Your task to perform on an android device: Open Reddit.com Image 0: 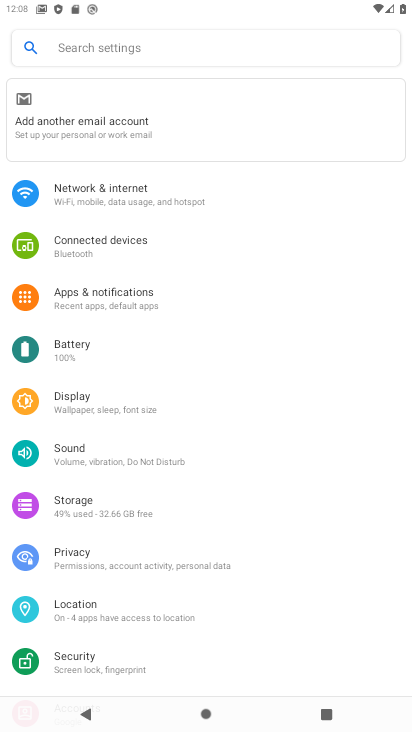
Step 0: press home button
Your task to perform on an android device: Open Reddit.com Image 1: 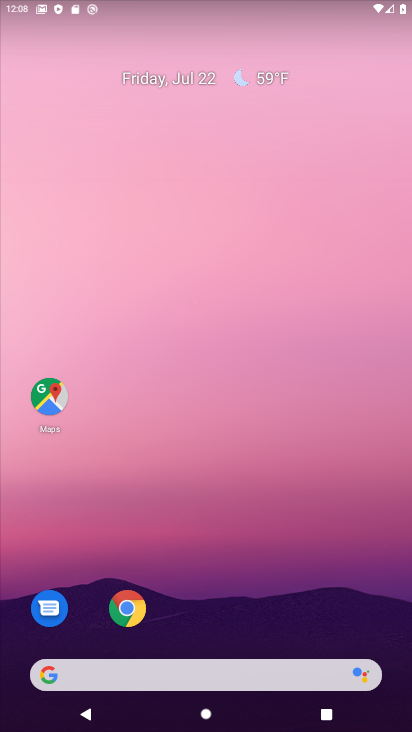
Step 1: click (129, 604)
Your task to perform on an android device: Open Reddit.com Image 2: 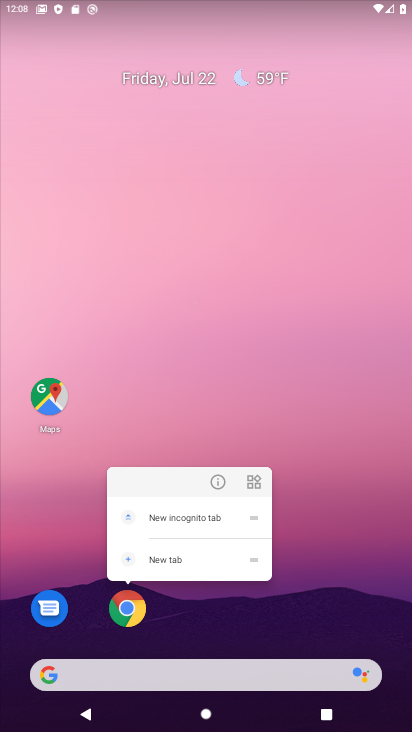
Step 2: click (121, 613)
Your task to perform on an android device: Open Reddit.com Image 3: 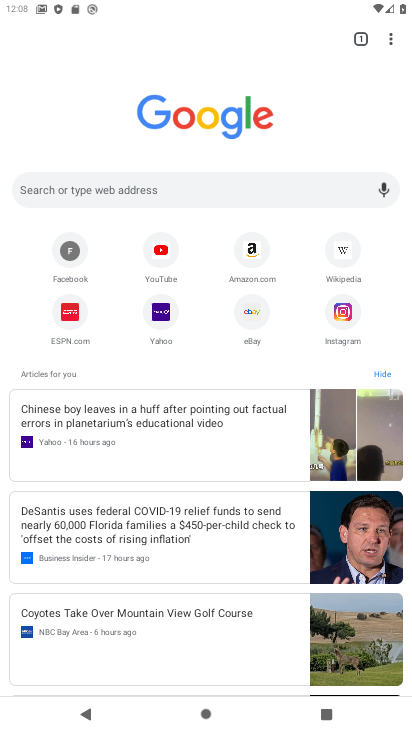
Step 3: click (175, 186)
Your task to perform on an android device: Open Reddit.com Image 4: 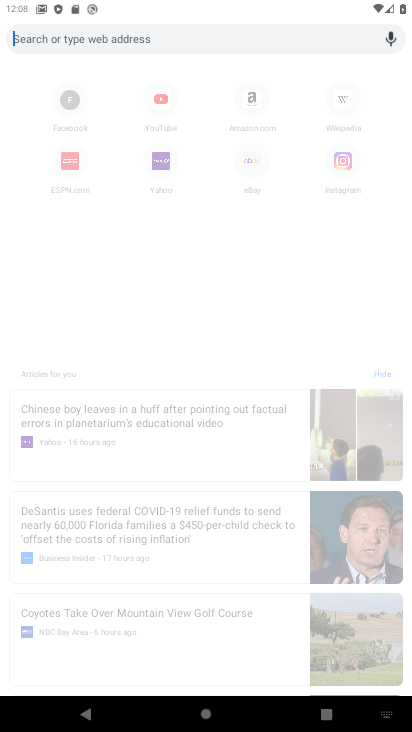
Step 4: type "Reddit.com"
Your task to perform on an android device: Open Reddit.com Image 5: 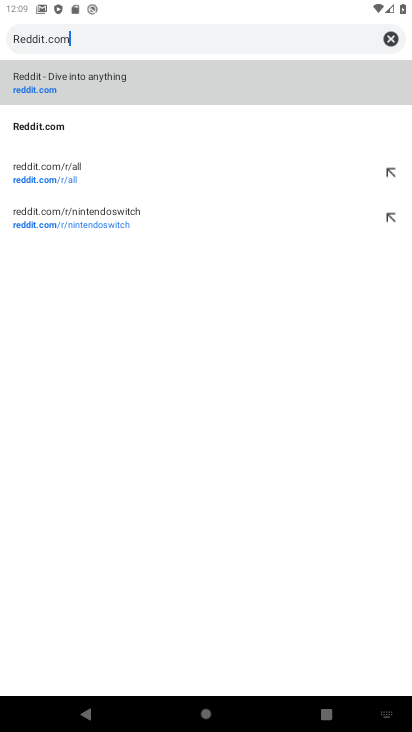
Step 5: click (69, 87)
Your task to perform on an android device: Open Reddit.com Image 6: 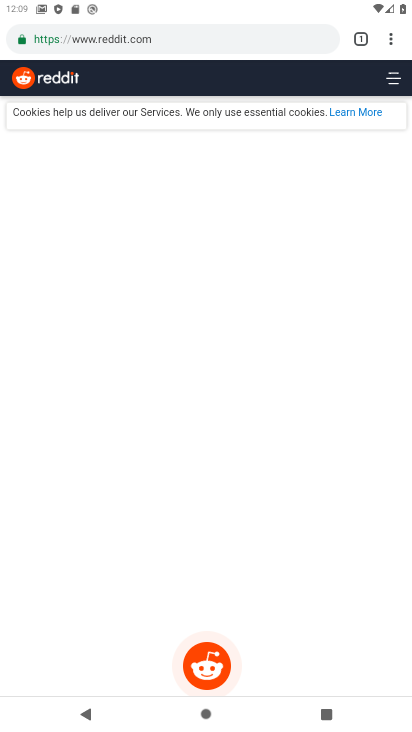
Step 6: task complete